Your task to perform on an android device: Open sound settings Image 0: 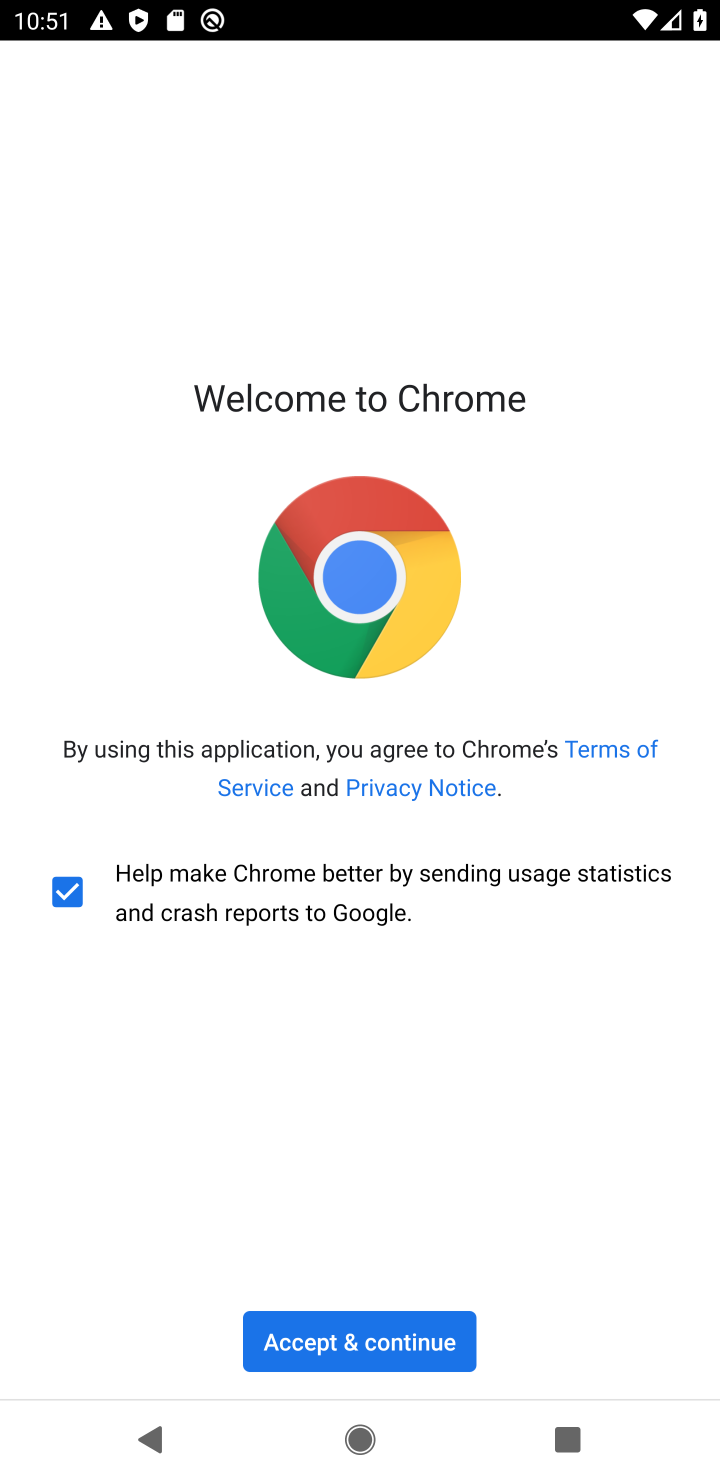
Step 0: press home button
Your task to perform on an android device: Open sound settings Image 1: 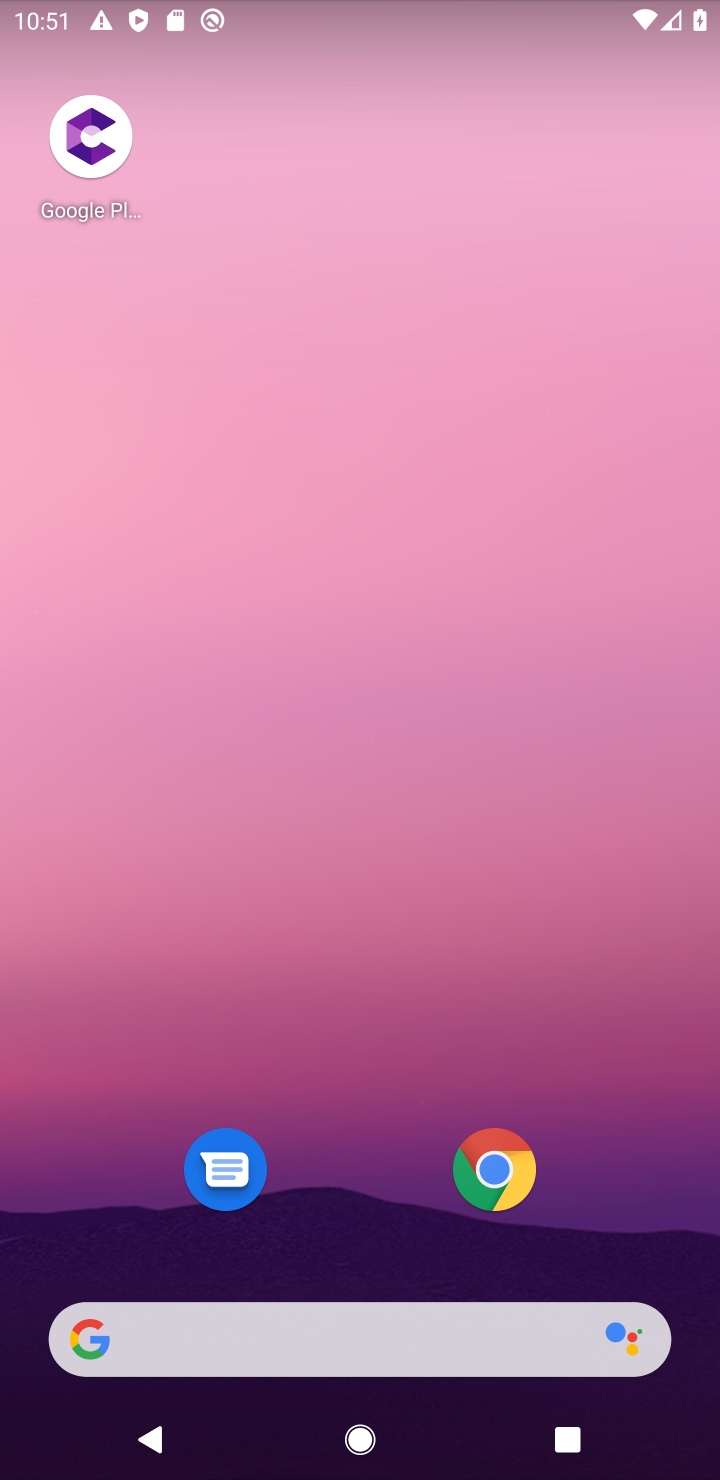
Step 1: drag from (334, 1004) to (342, 378)
Your task to perform on an android device: Open sound settings Image 2: 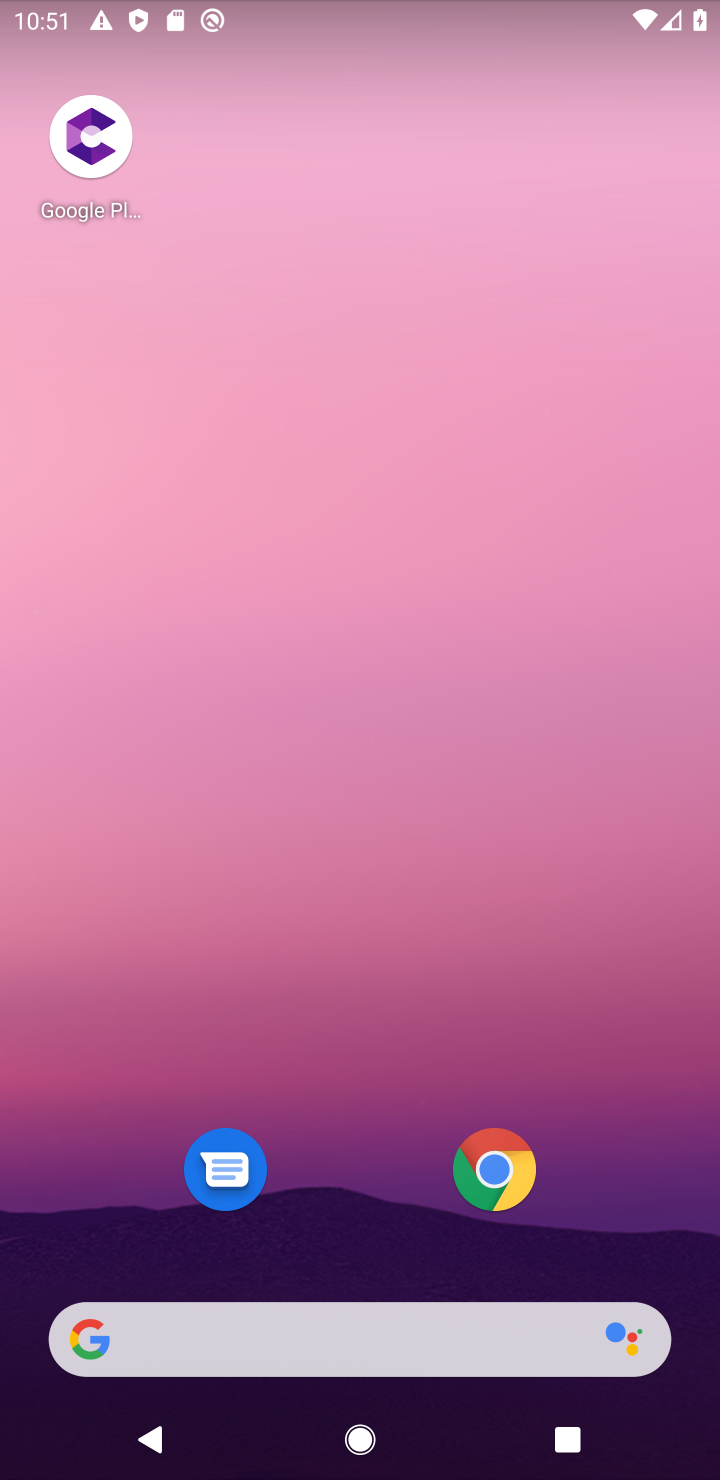
Step 2: drag from (320, 1049) to (348, 398)
Your task to perform on an android device: Open sound settings Image 3: 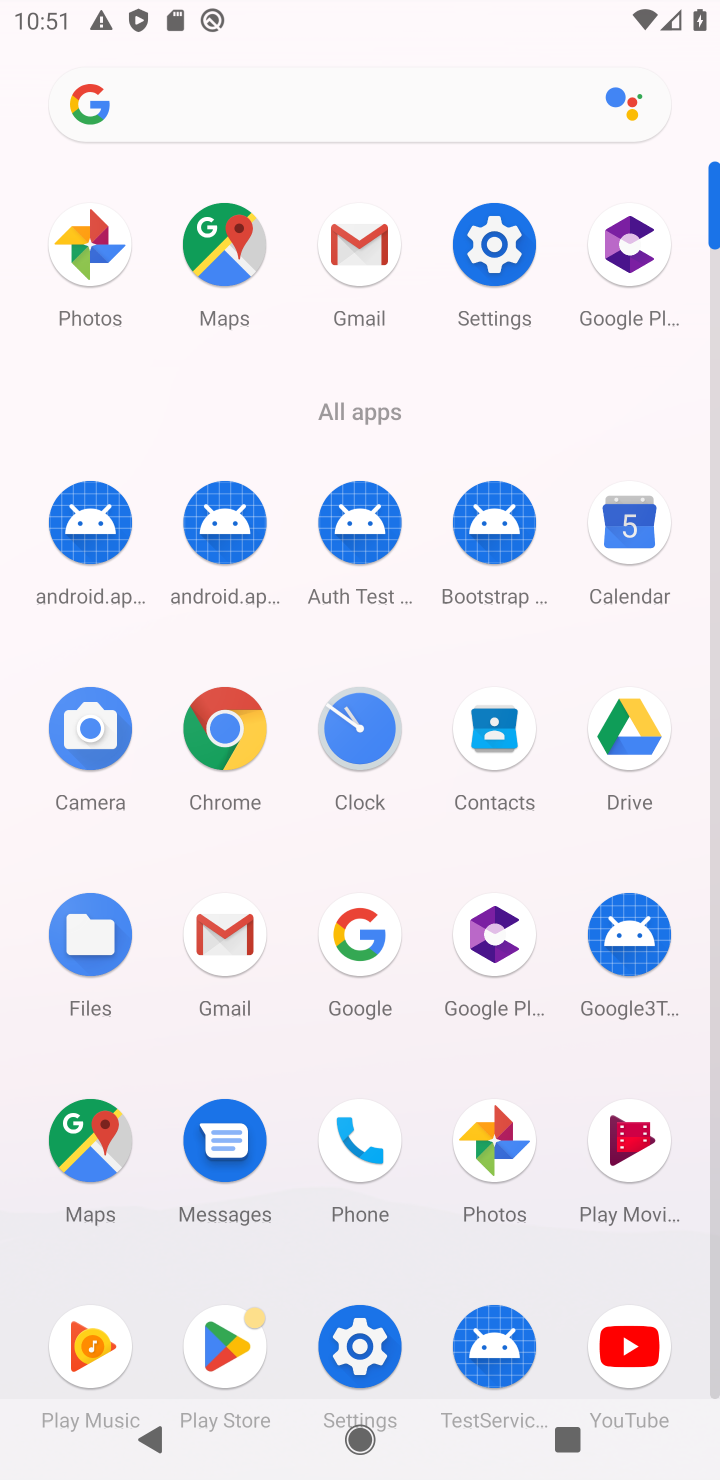
Step 3: click (359, 1342)
Your task to perform on an android device: Open sound settings Image 4: 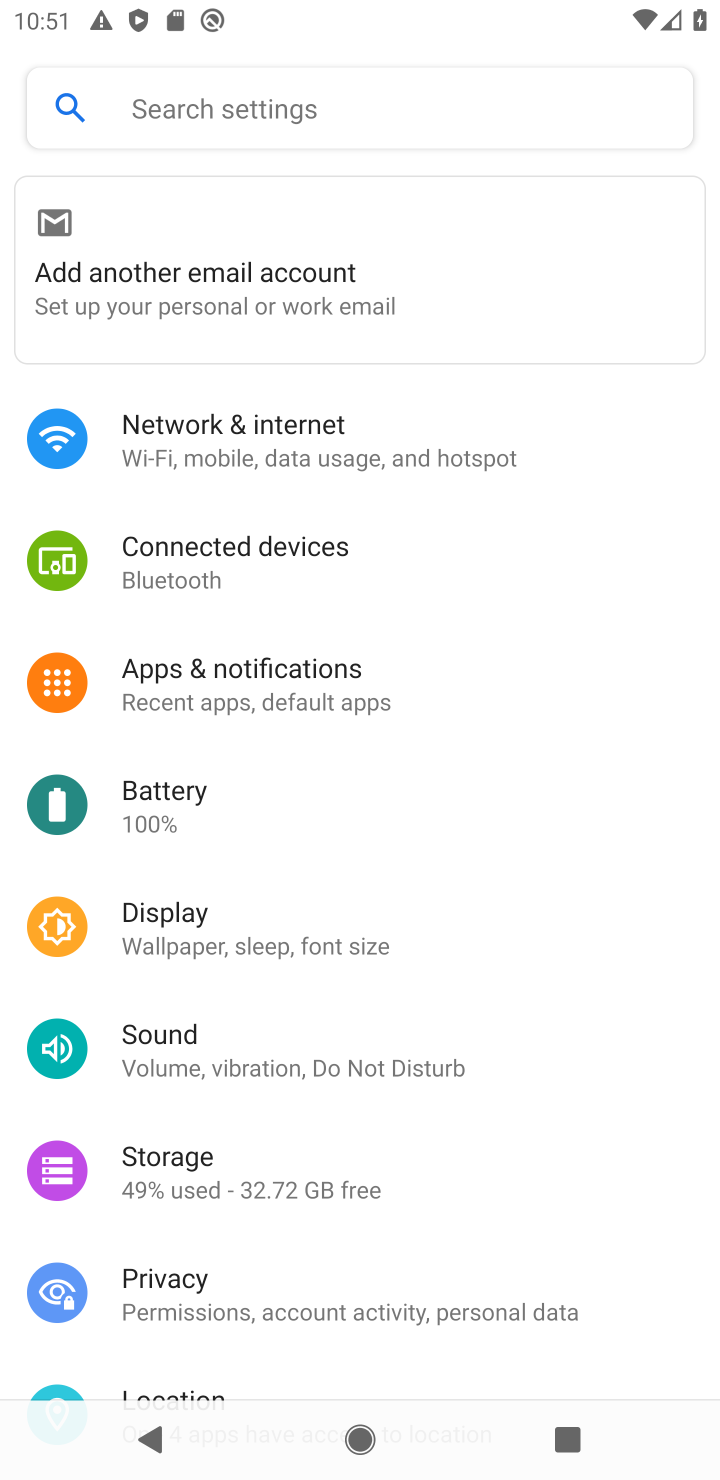
Step 4: click (179, 1060)
Your task to perform on an android device: Open sound settings Image 5: 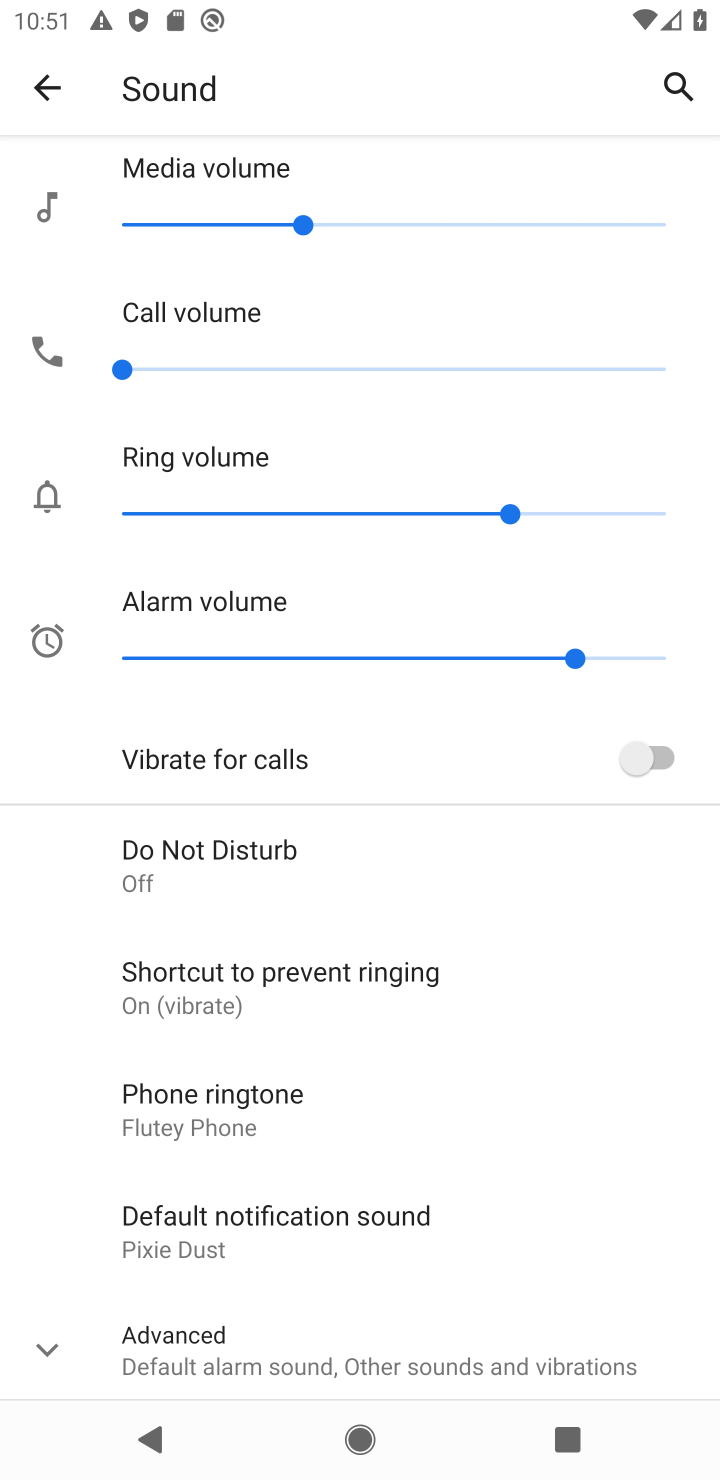
Step 5: task complete